Your task to perform on an android device: open a new tab in the chrome app Image 0: 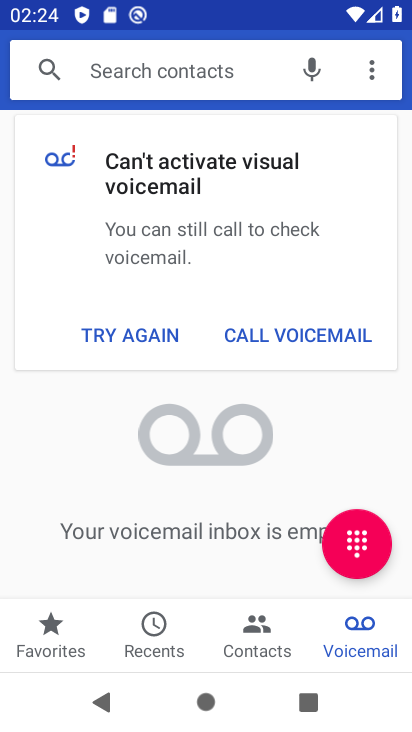
Step 0: drag from (94, 511) to (230, 139)
Your task to perform on an android device: open a new tab in the chrome app Image 1: 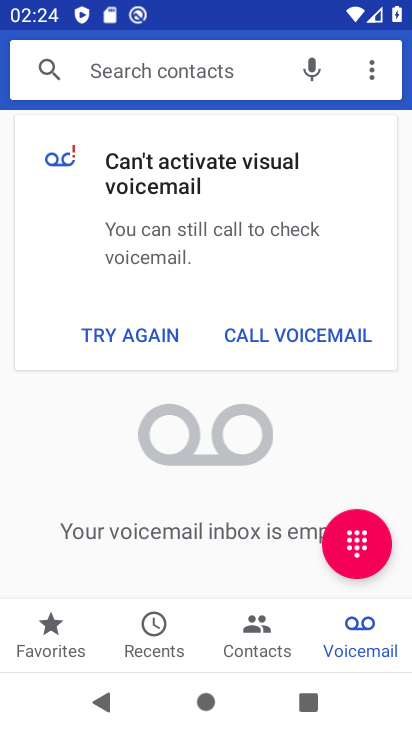
Step 1: press home button
Your task to perform on an android device: open a new tab in the chrome app Image 2: 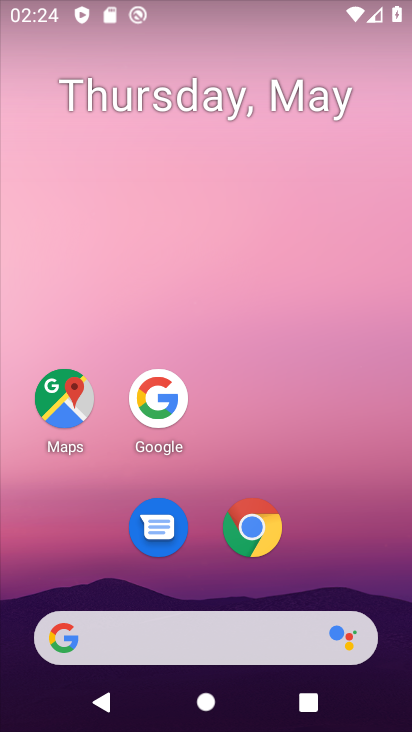
Step 2: drag from (203, 569) to (225, 79)
Your task to perform on an android device: open a new tab in the chrome app Image 3: 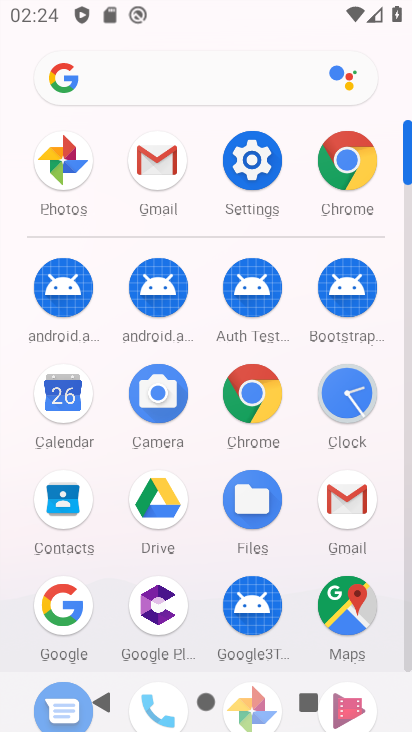
Step 3: click (241, 409)
Your task to perform on an android device: open a new tab in the chrome app Image 4: 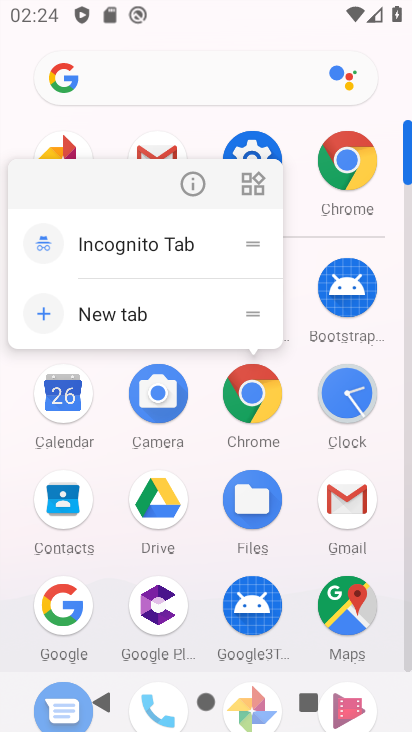
Step 4: click (191, 171)
Your task to perform on an android device: open a new tab in the chrome app Image 5: 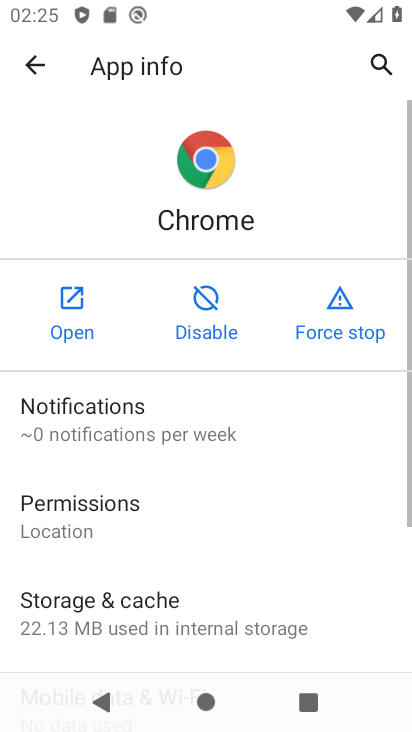
Step 5: click (63, 333)
Your task to perform on an android device: open a new tab in the chrome app Image 6: 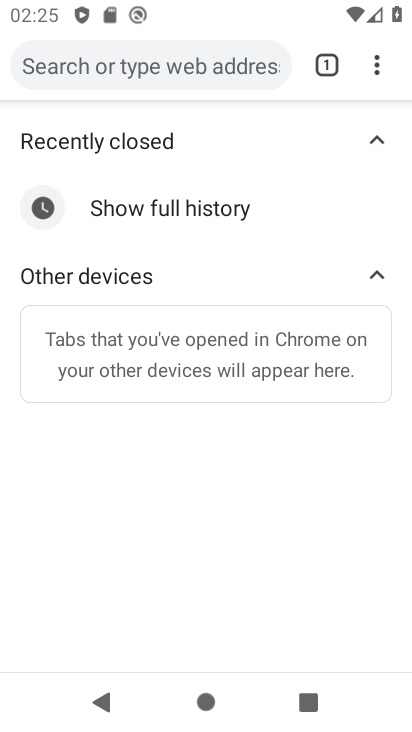
Step 6: click (323, 76)
Your task to perform on an android device: open a new tab in the chrome app Image 7: 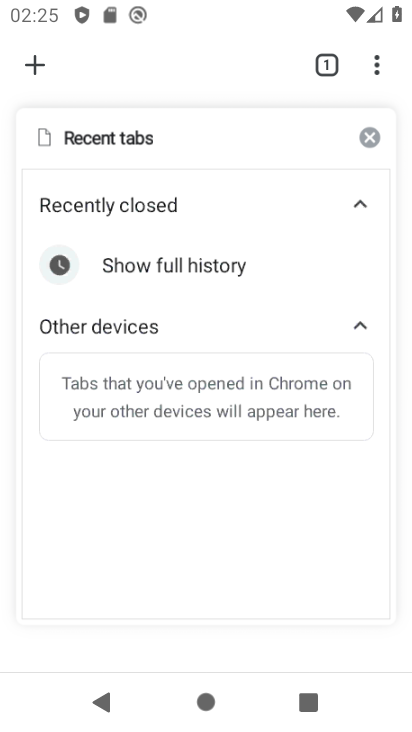
Step 7: click (27, 69)
Your task to perform on an android device: open a new tab in the chrome app Image 8: 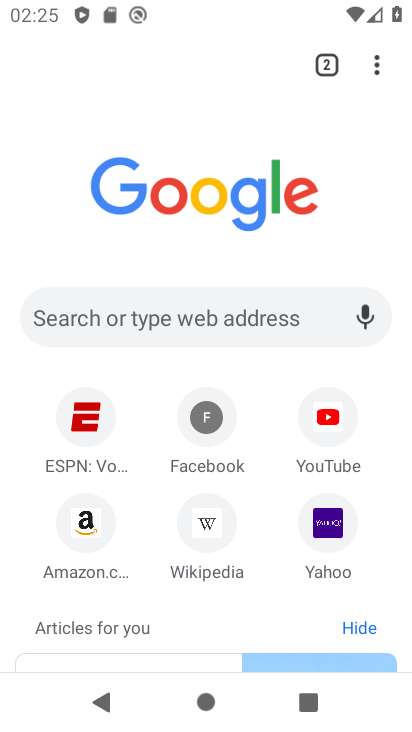
Step 8: task complete